Your task to perform on an android device: stop showing notifications on the lock screen Image 0: 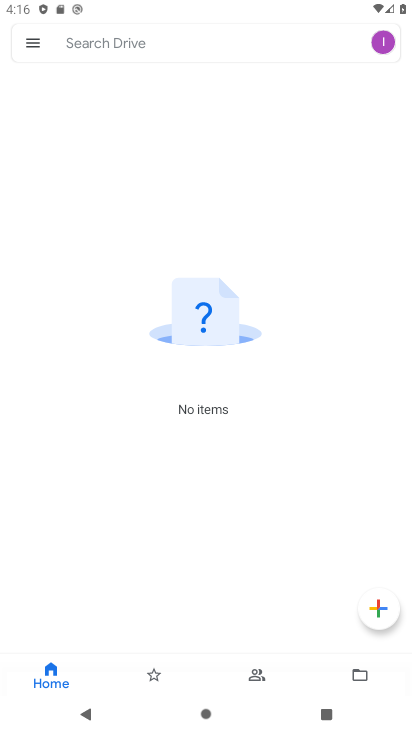
Step 0: press home button
Your task to perform on an android device: stop showing notifications on the lock screen Image 1: 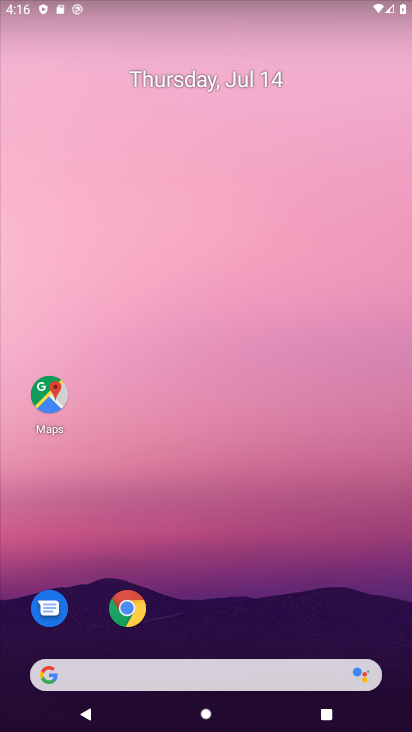
Step 1: drag from (173, 618) to (193, 193)
Your task to perform on an android device: stop showing notifications on the lock screen Image 2: 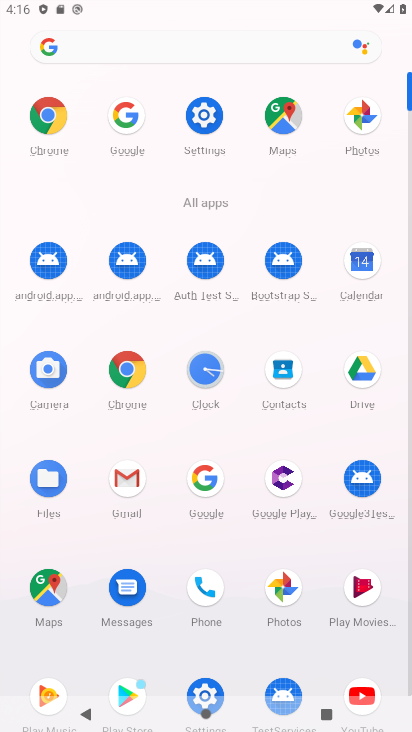
Step 2: click (194, 136)
Your task to perform on an android device: stop showing notifications on the lock screen Image 3: 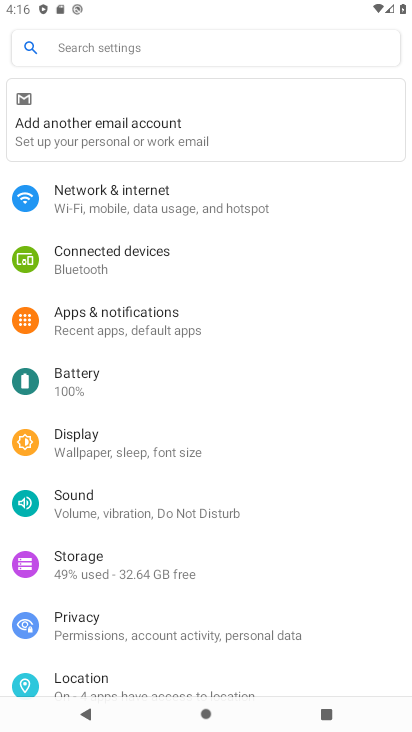
Step 3: click (130, 329)
Your task to perform on an android device: stop showing notifications on the lock screen Image 4: 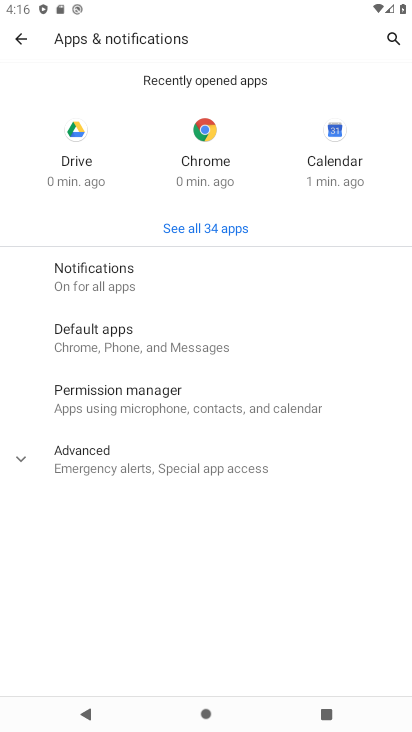
Step 4: click (101, 270)
Your task to perform on an android device: stop showing notifications on the lock screen Image 5: 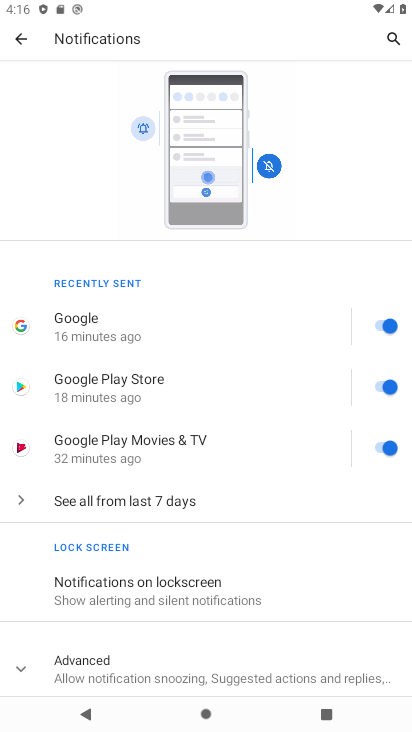
Step 5: click (187, 584)
Your task to perform on an android device: stop showing notifications on the lock screen Image 6: 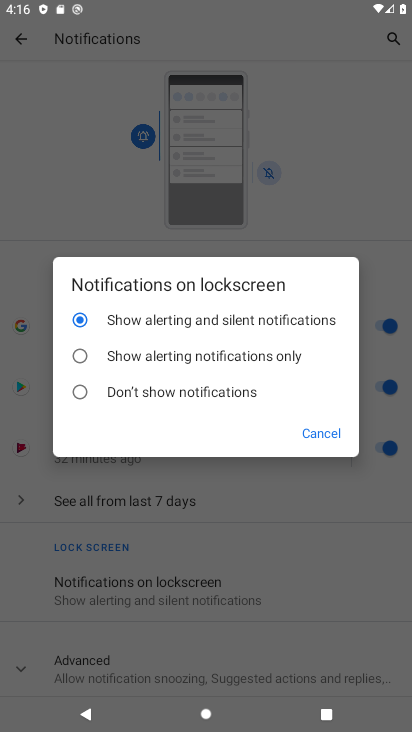
Step 6: click (110, 406)
Your task to perform on an android device: stop showing notifications on the lock screen Image 7: 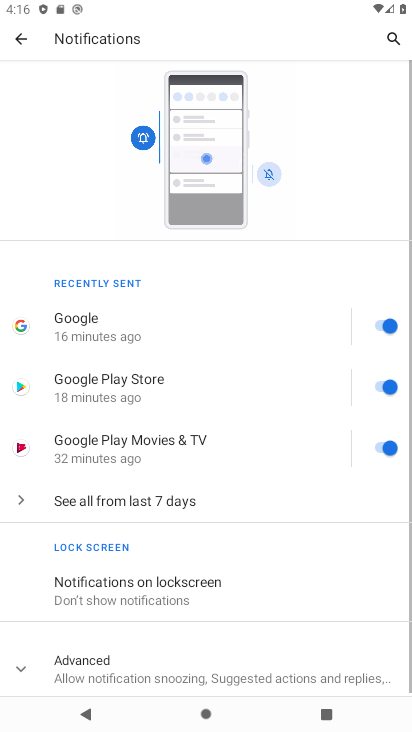
Step 7: task complete